Your task to perform on an android device: see sites visited before in the chrome app Image 0: 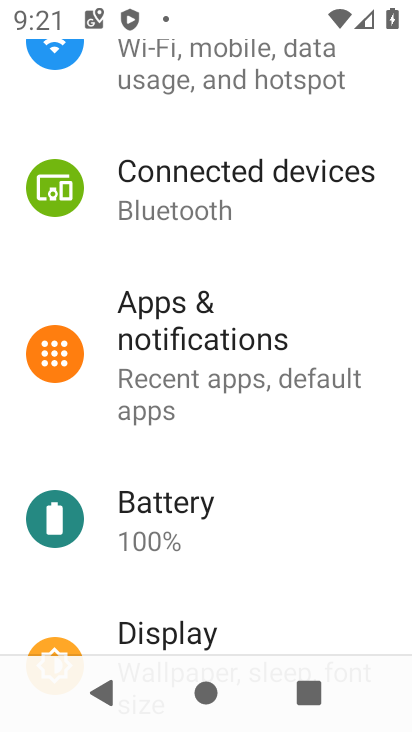
Step 0: press home button
Your task to perform on an android device: see sites visited before in the chrome app Image 1: 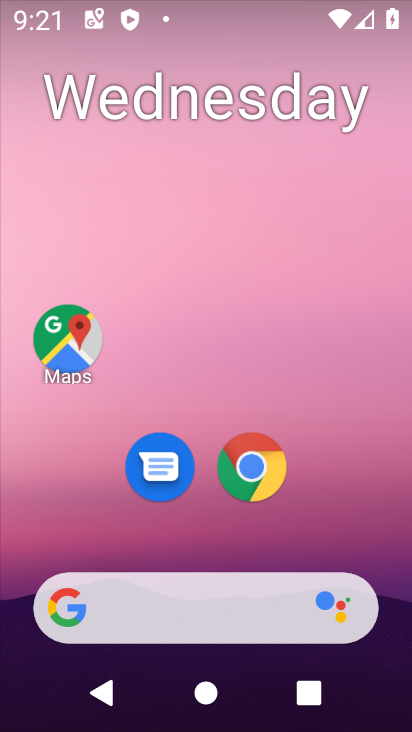
Step 1: click (264, 469)
Your task to perform on an android device: see sites visited before in the chrome app Image 2: 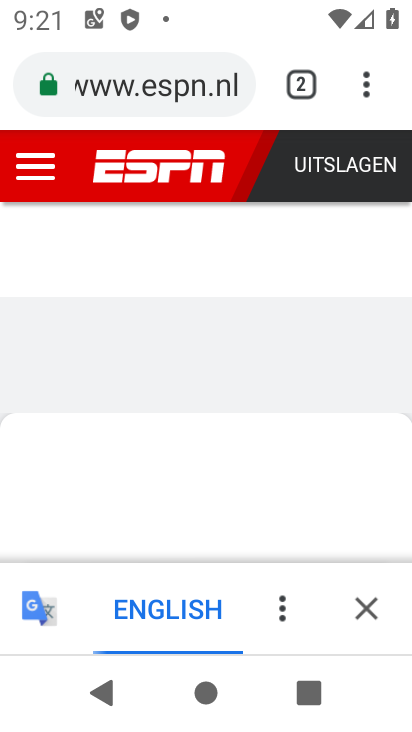
Step 2: click (369, 88)
Your task to perform on an android device: see sites visited before in the chrome app Image 3: 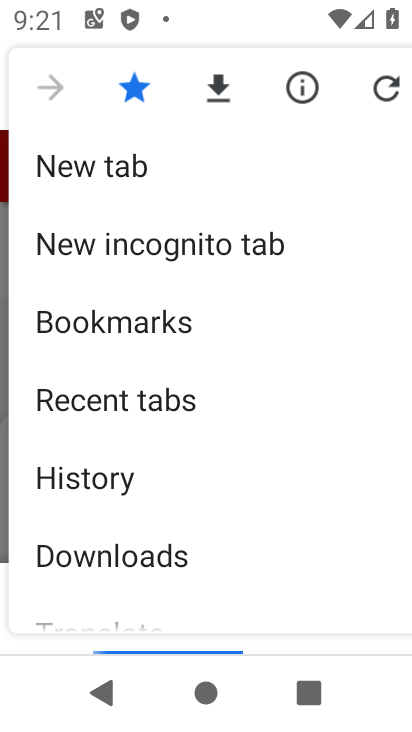
Step 3: click (148, 478)
Your task to perform on an android device: see sites visited before in the chrome app Image 4: 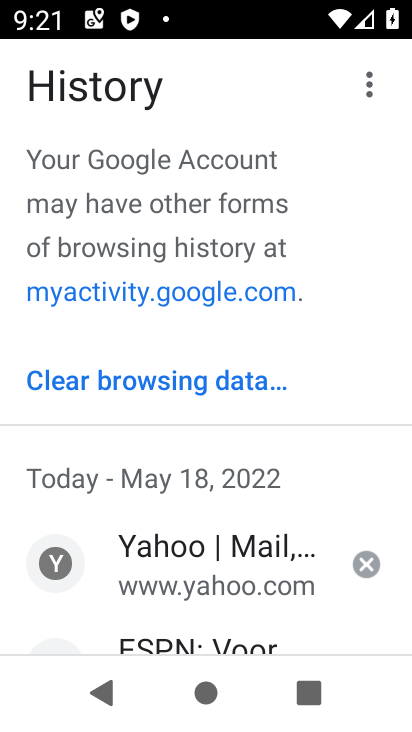
Step 4: task complete